Your task to perform on an android device: Open Chrome and go to the settings page Image 0: 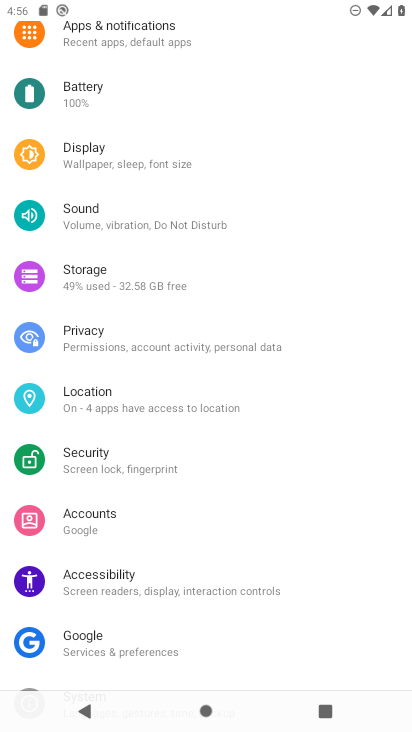
Step 0: press home button
Your task to perform on an android device: Open Chrome and go to the settings page Image 1: 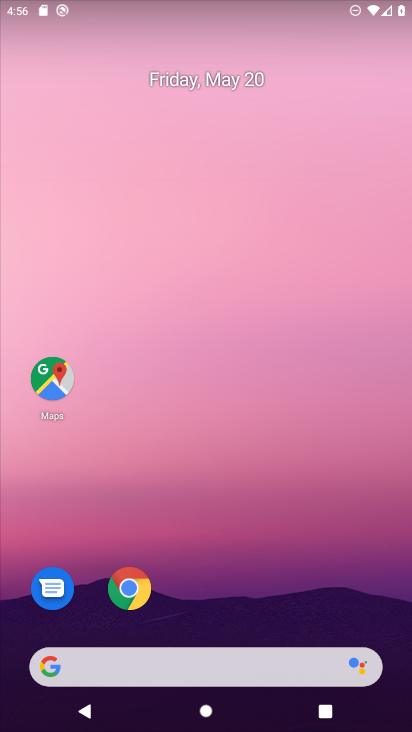
Step 1: click (134, 599)
Your task to perform on an android device: Open Chrome and go to the settings page Image 2: 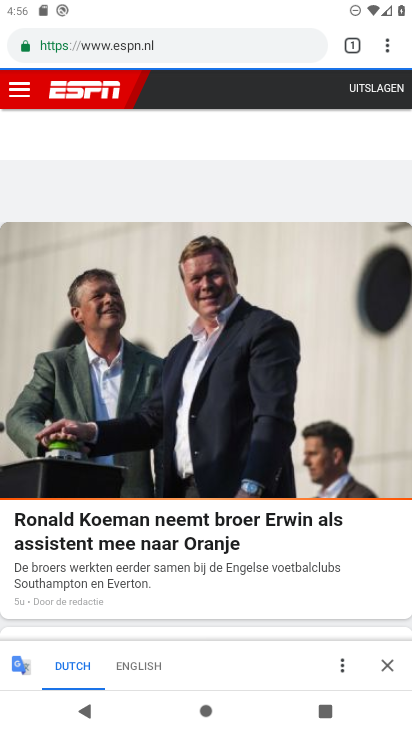
Step 2: click (395, 54)
Your task to perform on an android device: Open Chrome and go to the settings page Image 3: 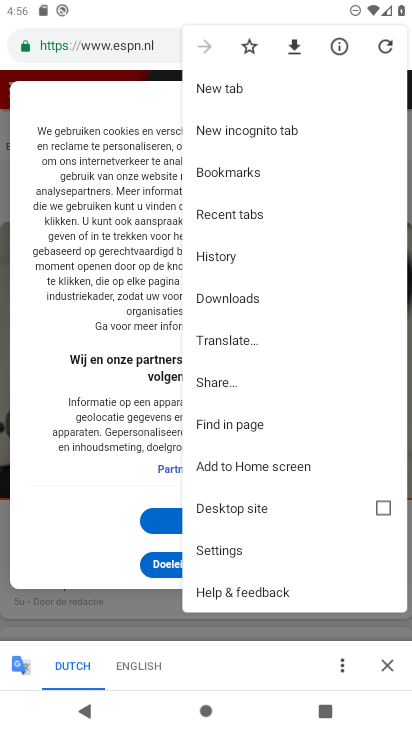
Step 3: click (237, 557)
Your task to perform on an android device: Open Chrome and go to the settings page Image 4: 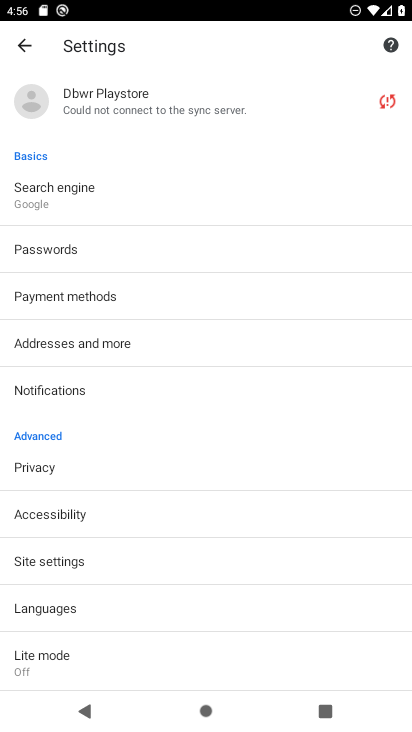
Step 4: task complete